Your task to perform on an android device: turn notification dots on Image 0: 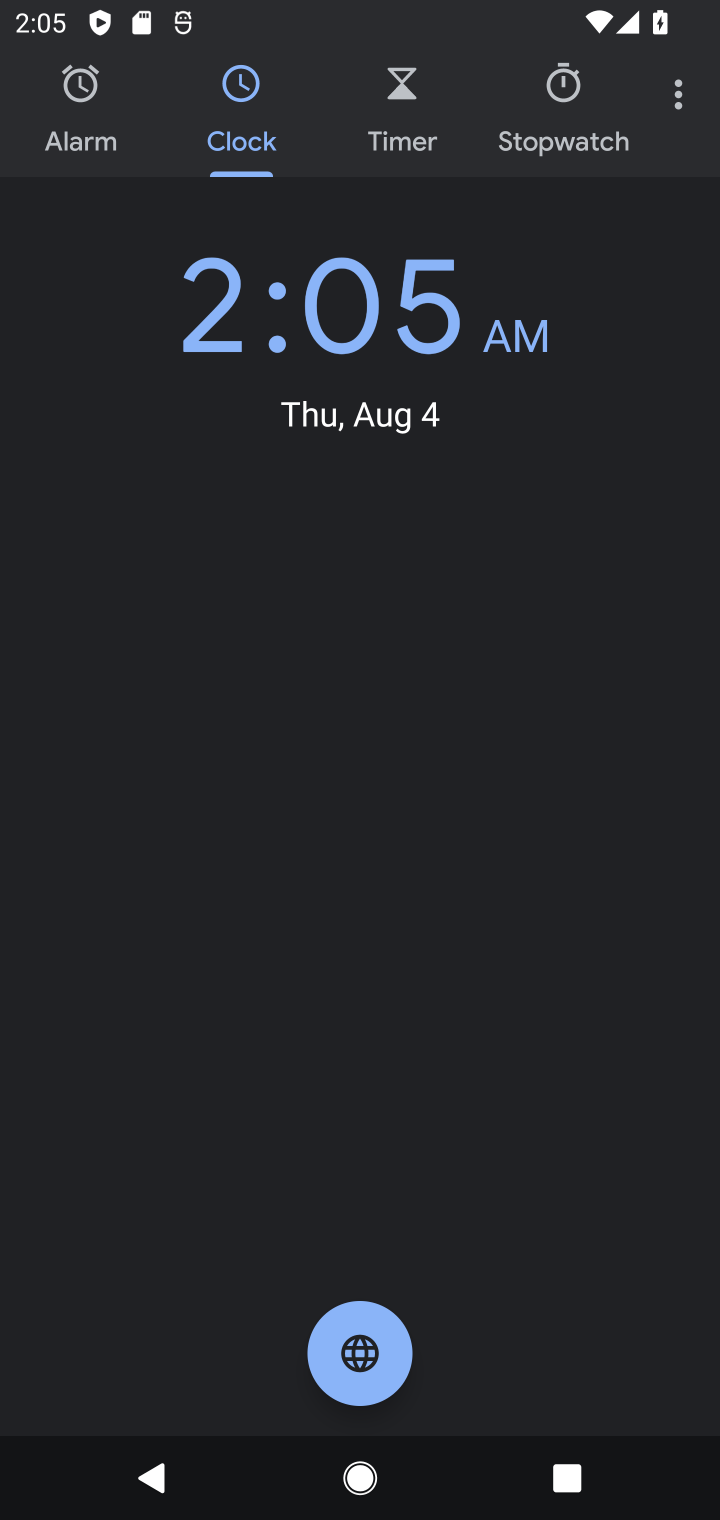
Step 0: press home button
Your task to perform on an android device: turn notification dots on Image 1: 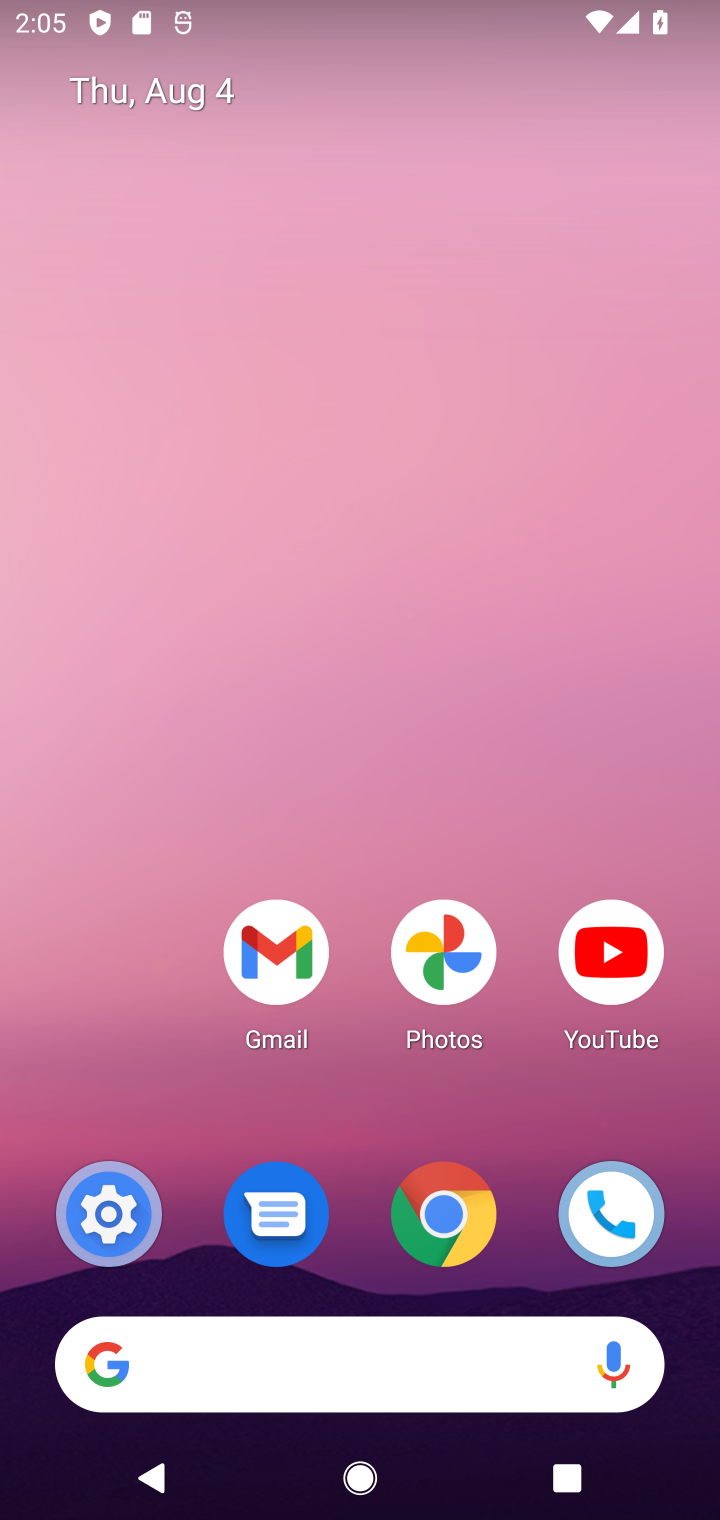
Step 1: drag from (520, 808) to (335, 3)
Your task to perform on an android device: turn notification dots on Image 2: 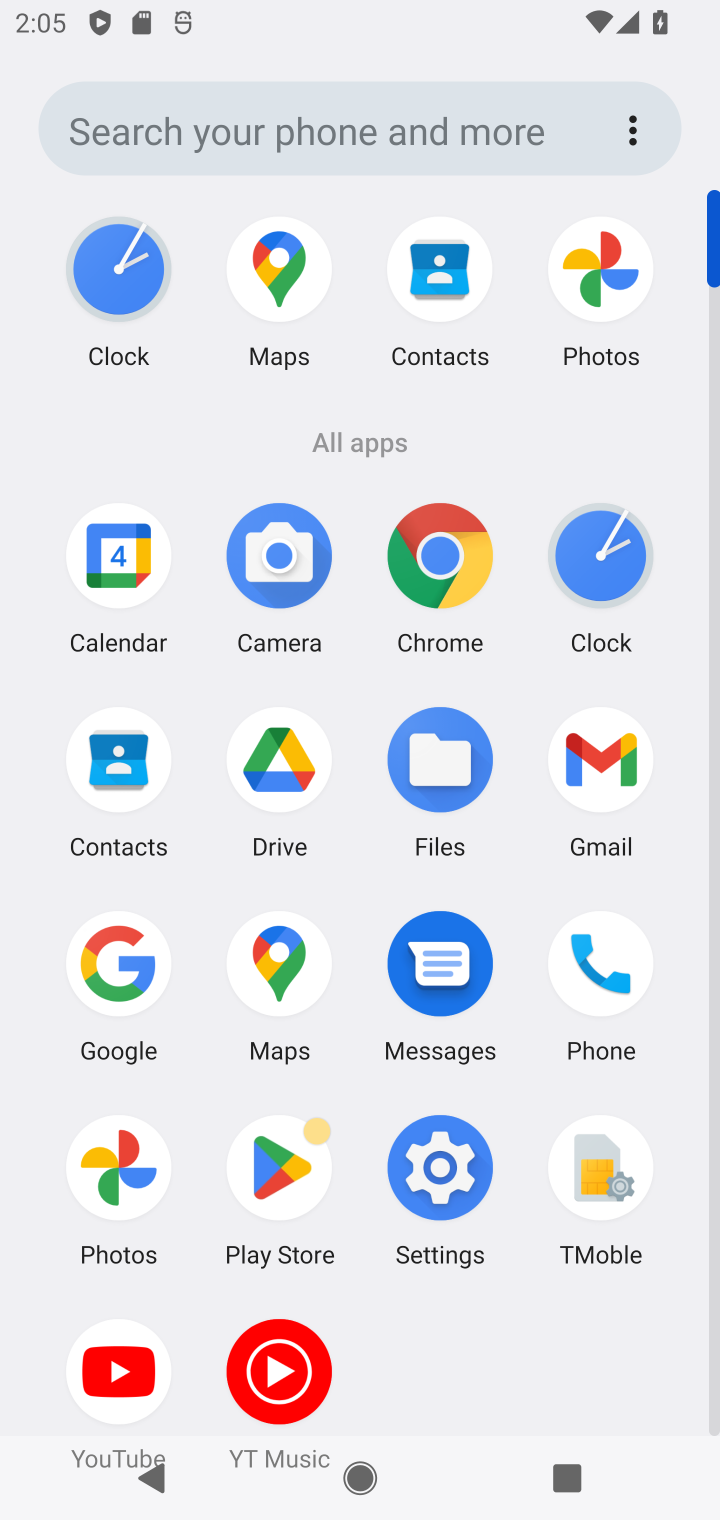
Step 2: click (445, 1193)
Your task to perform on an android device: turn notification dots on Image 3: 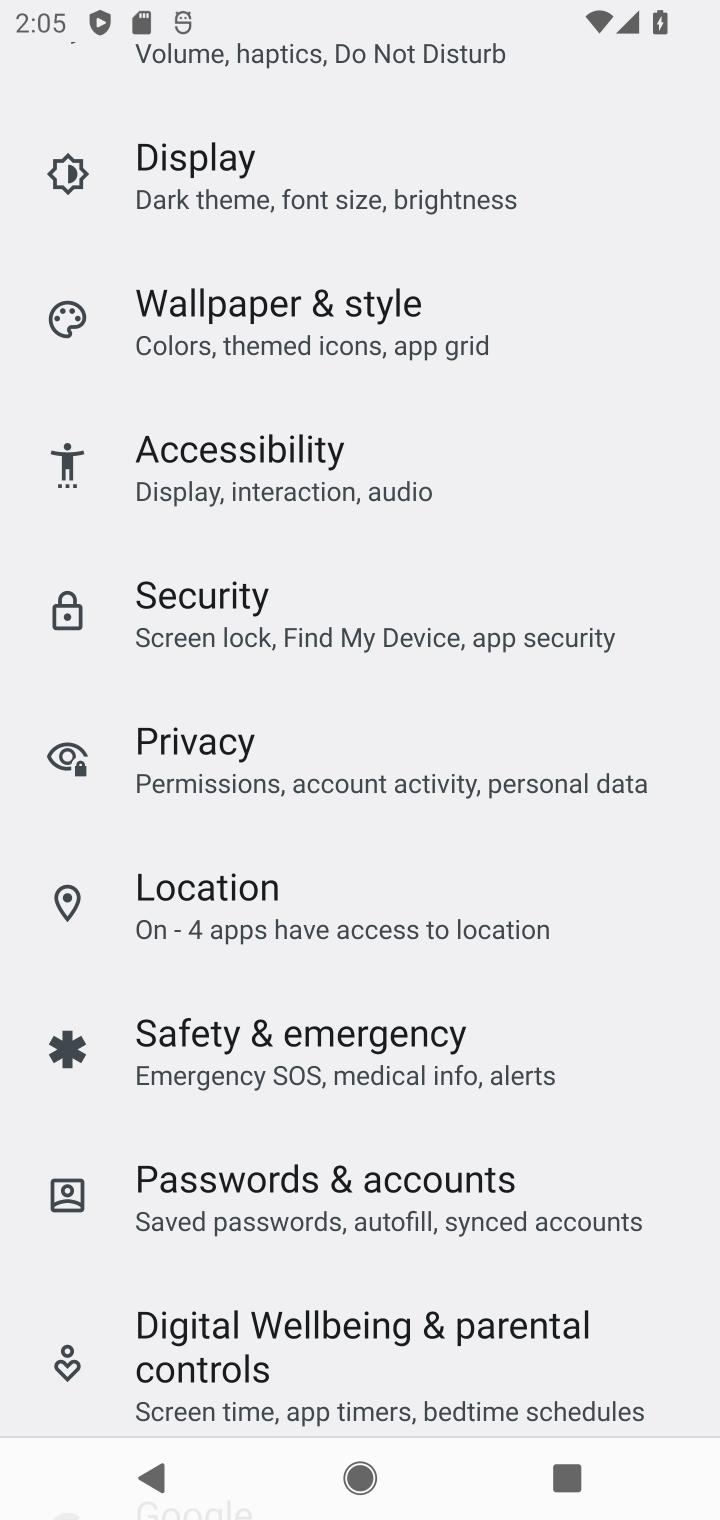
Step 3: drag from (302, 345) to (397, 1496)
Your task to perform on an android device: turn notification dots on Image 4: 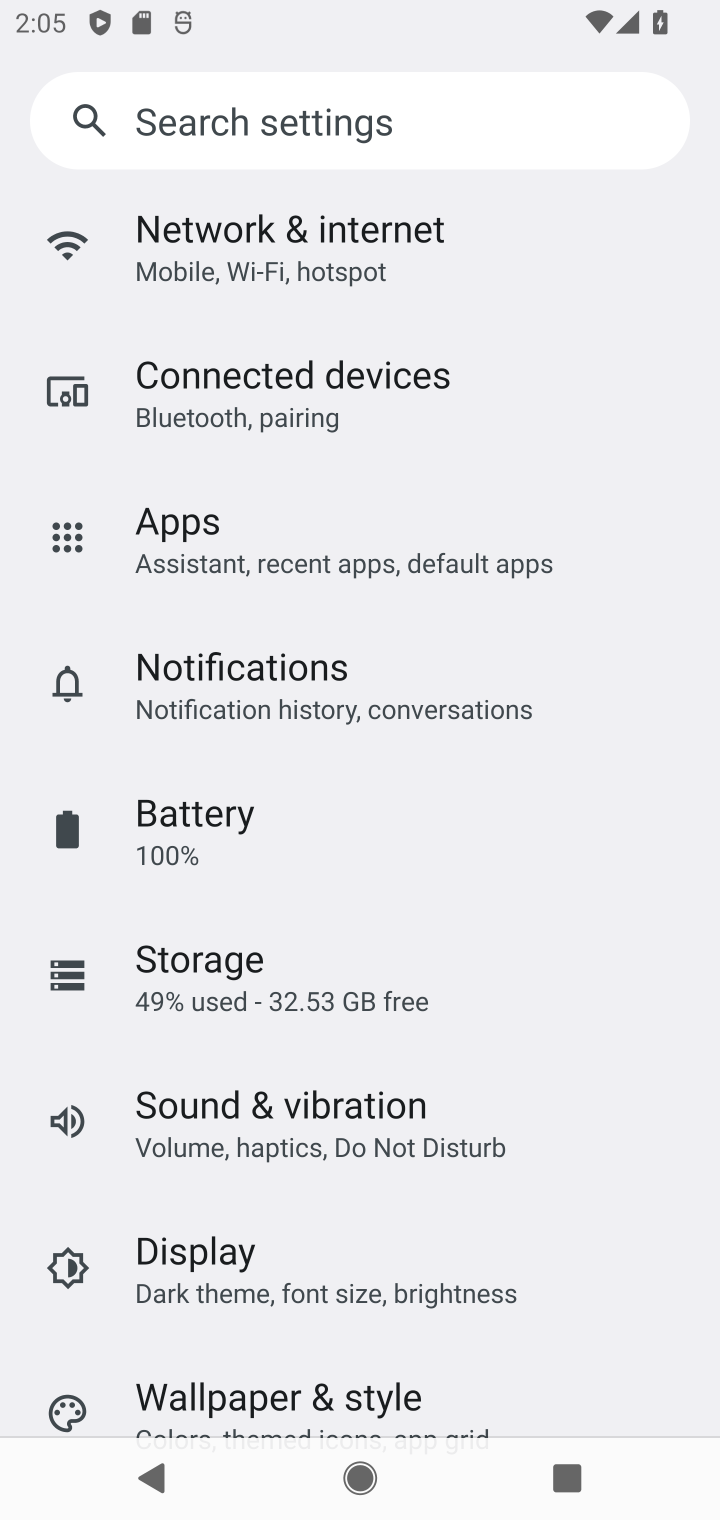
Step 4: click (317, 728)
Your task to perform on an android device: turn notification dots on Image 5: 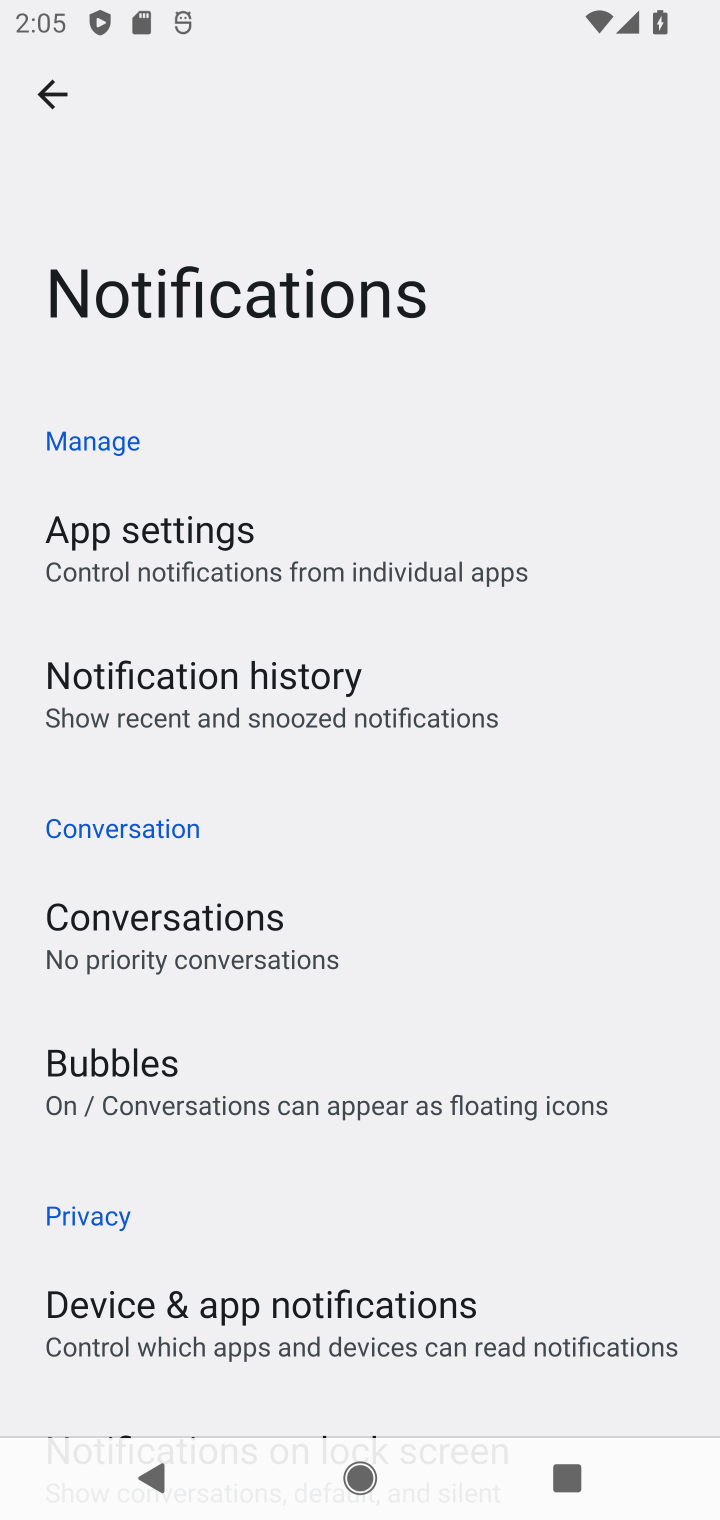
Step 5: task complete